Your task to perform on an android device: Show me recent news Image 0: 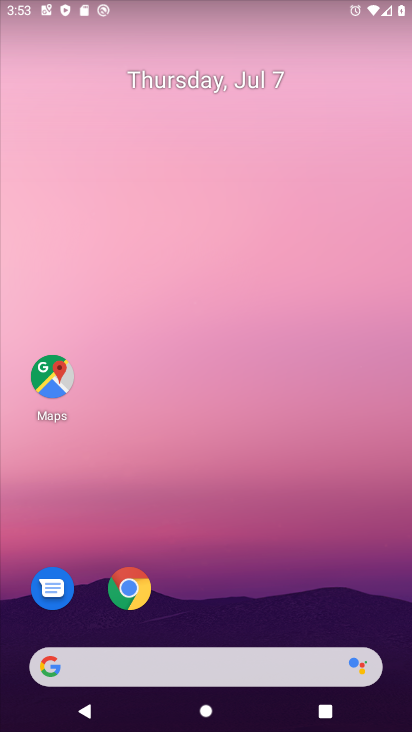
Step 0: click (132, 664)
Your task to perform on an android device: Show me recent news Image 1: 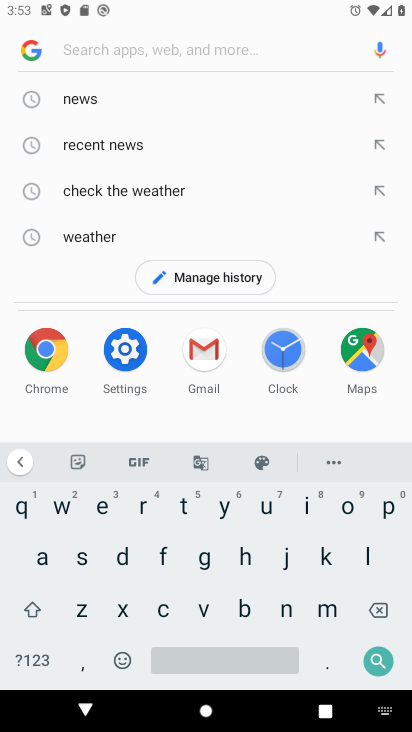
Step 1: click (102, 146)
Your task to perform on an android device: Show me recent news Image 2: 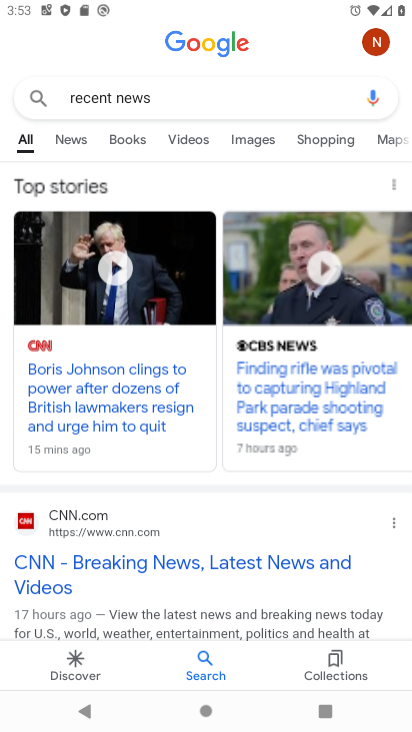
Step 2: task complete